Your task to perform on an android device: turn off notifications settings in the gmail app Image 0: 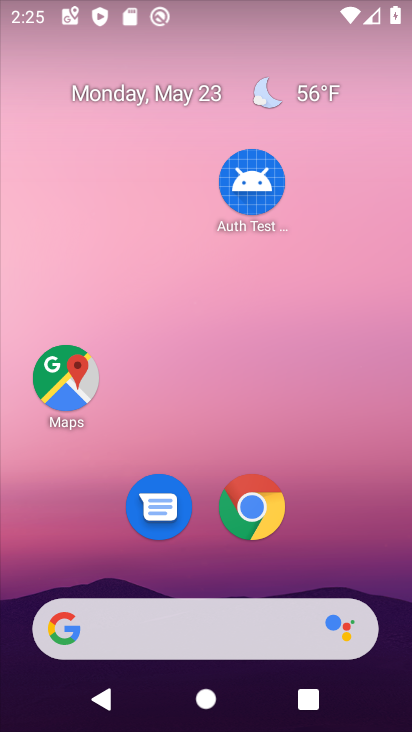
Step 0: drag from (348, 695) to (200, 7)
Your task to perform on an android device: turn off notifications settings in the gmail app Image 1: 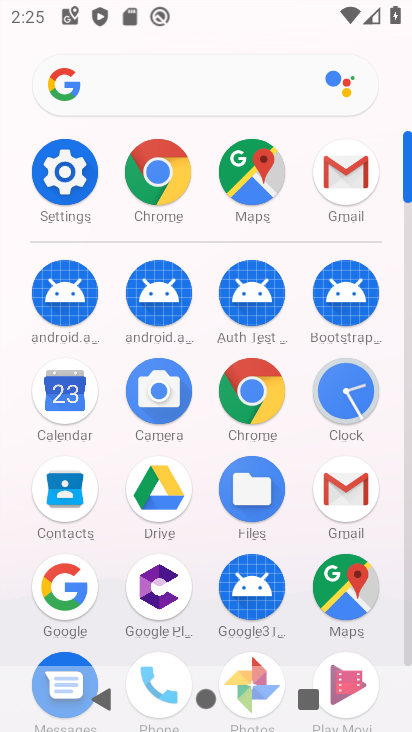
Step 1: click (342, 480)
Your task to perform on an android device: turn off notifications settings in the gmail app Image 2: 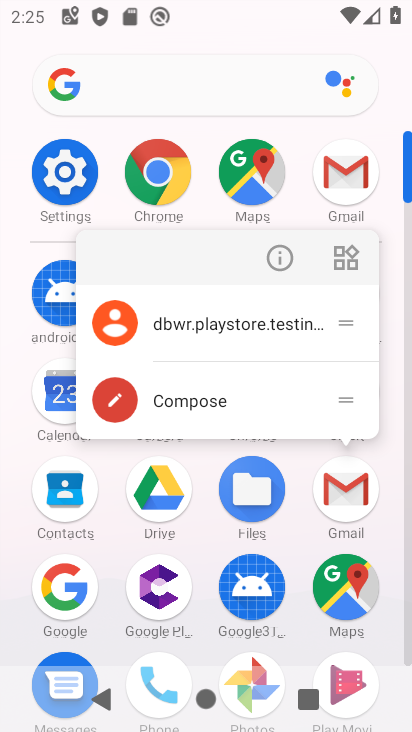
Step 2: click (342, 480)
Your task to perform on an android device: turn off notifications settings in the gmail app Image 3: 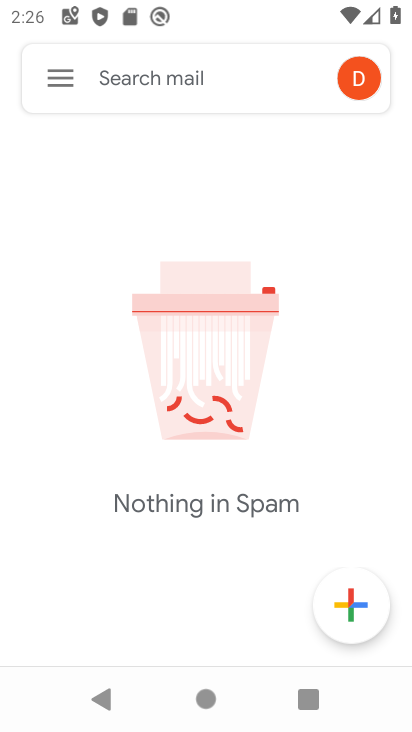
Step 3: press back button
Your task to perform on an android device: turn off notifications settings in the gmail app Image 4: 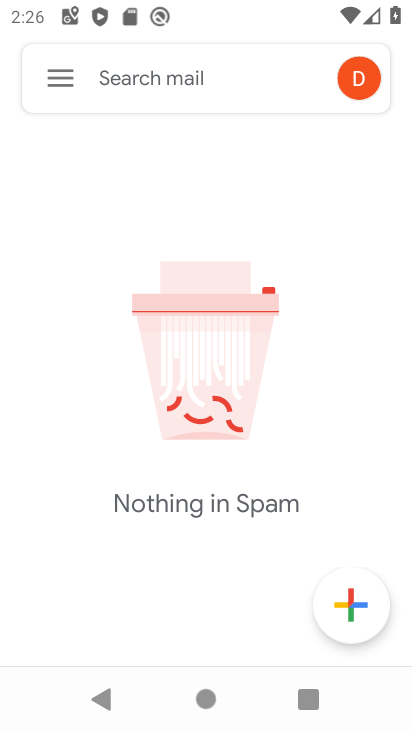
Step 4: press back button
Your task to perform on an android device: turn off notifications settings in the gmail app Image 5: 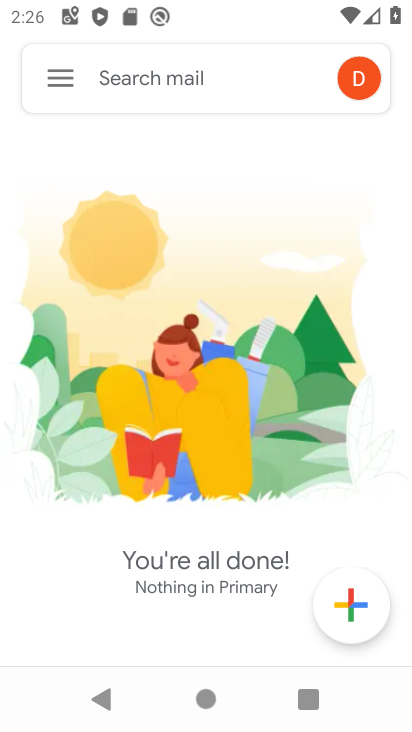
Step 5: press back button
Your task to perform on an android device: turn off notifications settings in the gmail app Image 6: 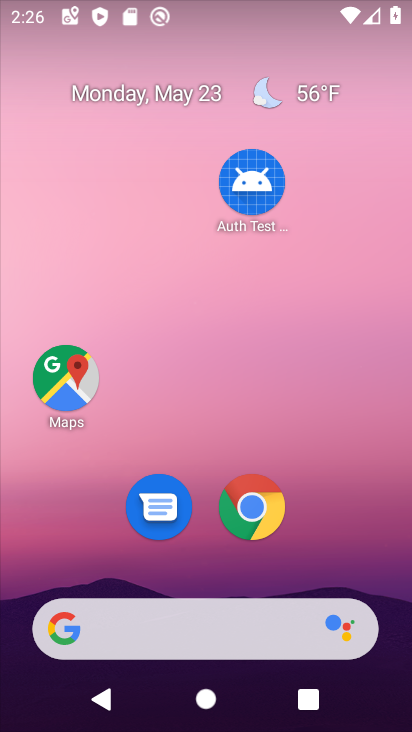
Step 6: press home button
Your task to perform on an android device: turn off notifications settings in the gmail app Image 7: 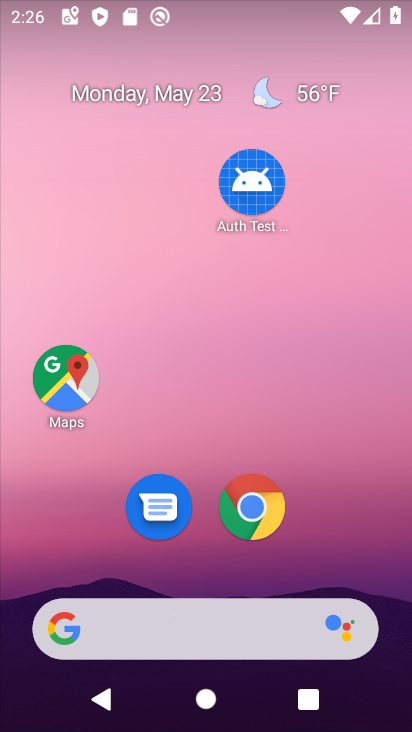
Step 7: drag from (270, 533) to (163, 33)
Your task to perform on an android device: turn off notifications settings in the gmail app Image 8: 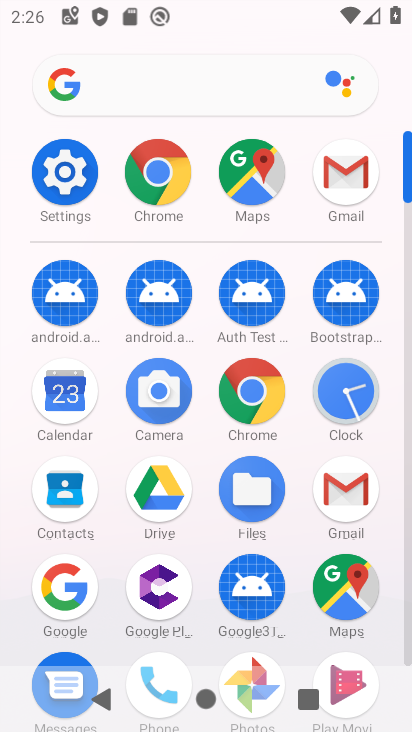
Step 8: click (335, 479)
Your task to perform on an android device: turn off notifications settings in the gmail app Image 9: 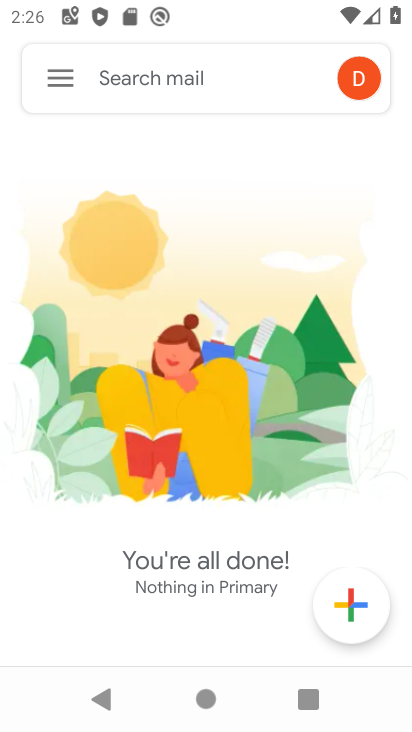
Step 9: click (64, 64)
Your task to perform on an android device: turn off notifications settings in the gmail app Image 10: 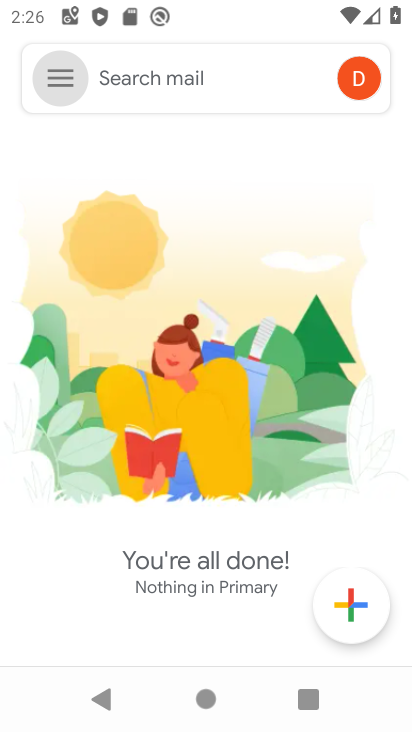
Step 10: click (64, 72)
Your task to perform on an android device: turn off notifications settings in the gmail app Image 11: 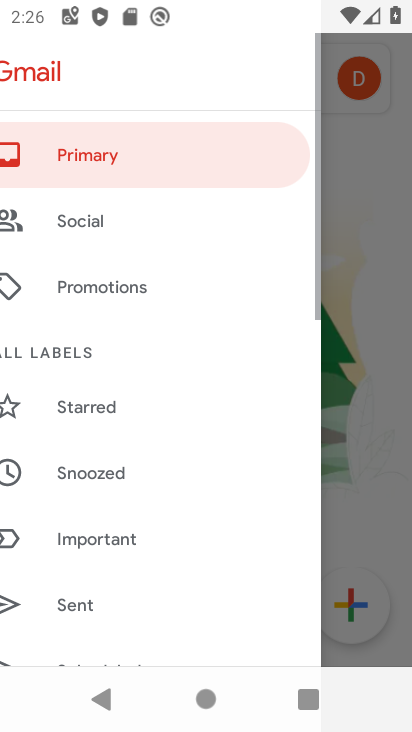
Step 11: click (64, 72)
Your task to perform on an android device: turn off notifications settings in the gmail app Image 12: 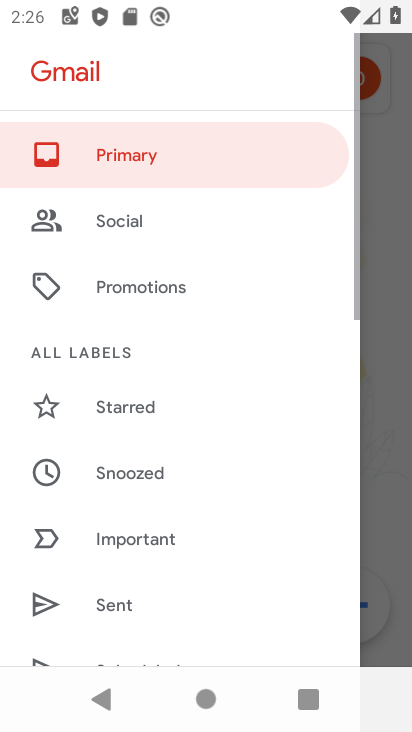
Step 12: click (65, 73)
Your task to perform on an android device: turn off notifications settings in the gmail app Image 13: 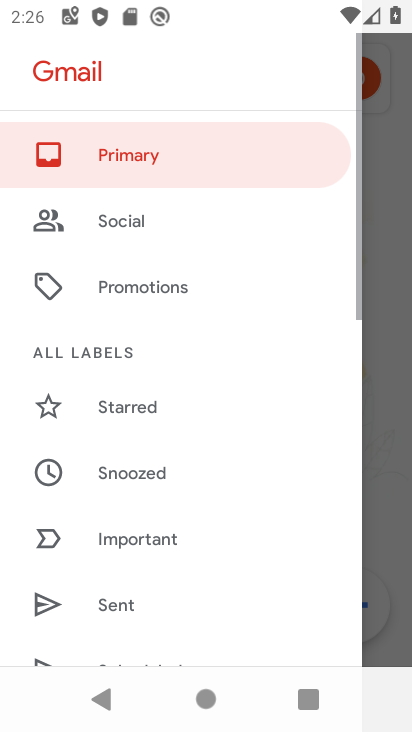
Step 13: click (66, 72)
Your task to perform on an android device: turn off notifications settings in the gmail app Image 14: 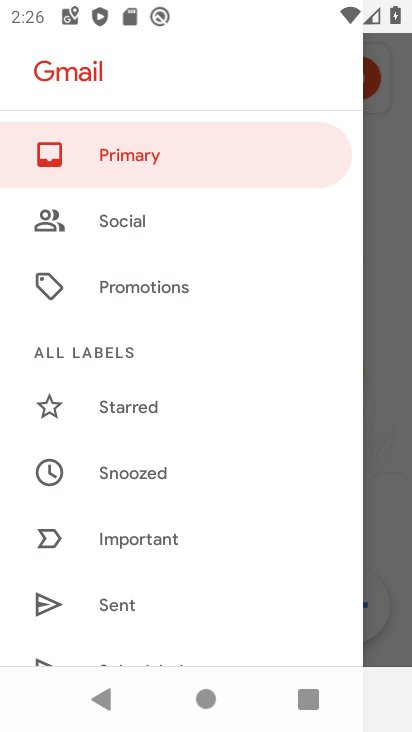
Step 14: drag from (254, 526) to (239, 123)
Your task to perform on an android device: turn off notifications settings in the gmail app Image 15: 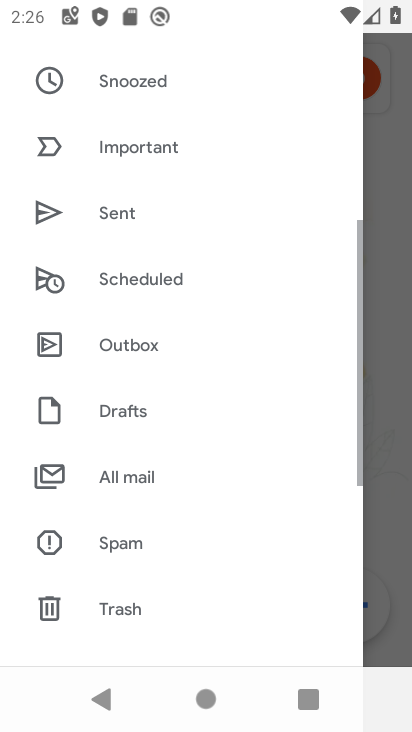
Step 15: drag from (251, 421) to (174, 107)
Your task to perform on an android device: turn off notifications settings in the gmail app Image 16: 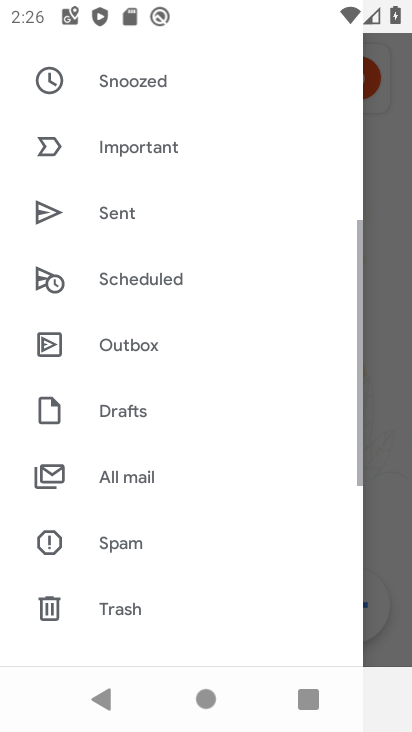
Step 16: drag from (184, 449) to (129, 44)
Your task to perform on an android device: turn off notifications settings in the gmail app Image 17: 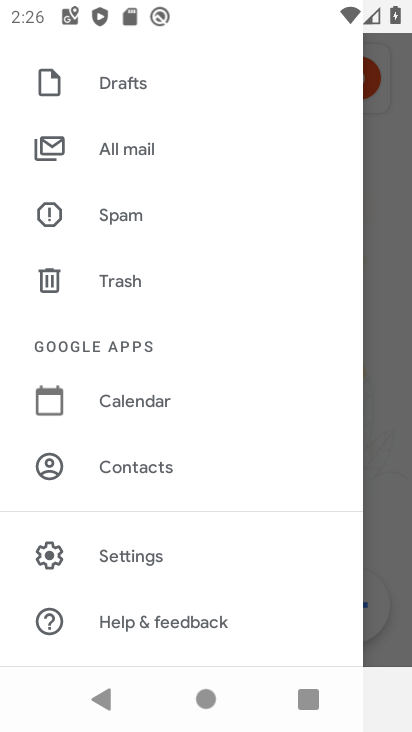
Step 17: click (131, 545)
Your task to perform on an android device: turn off notifications settings in the gmail app Image 18: 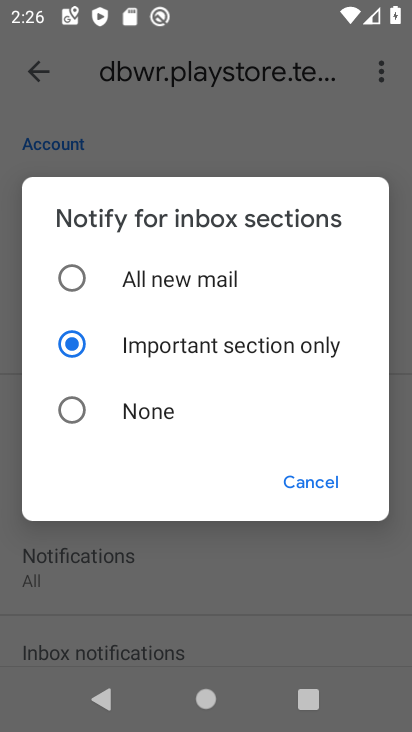
Step 18: click (310, 475)
Your task to perform on an android device: turn off notifications settings in the gmail app Image 19: 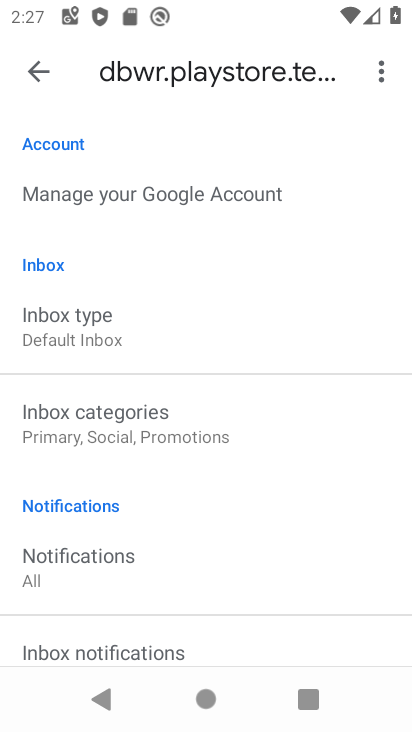
Step 19: drag from (101, 464) to (95, 77)
Your task to perform on an android device: turn off notifications settings in the gmail app Image 20: 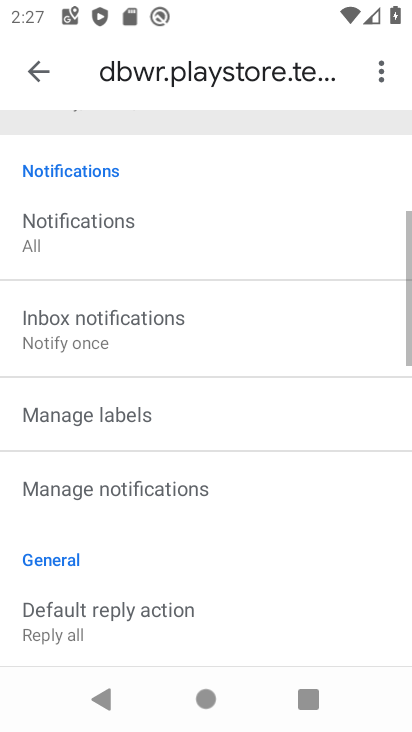
Step 20: drag from (167, 490) to (161, 199)
Your task to perform on an android device: turn off notifications settings in the gmail app Image 21: 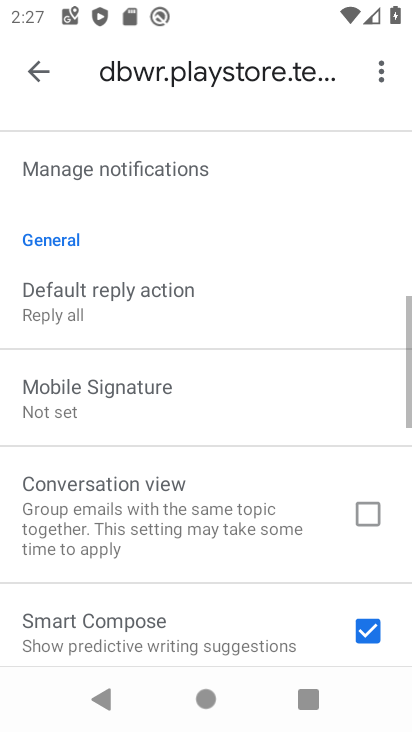
Step 21: drag from (181, 534) to (123, 338)
Your task to perform on an android device: turn off notifications settings in the gmail app Image 22: 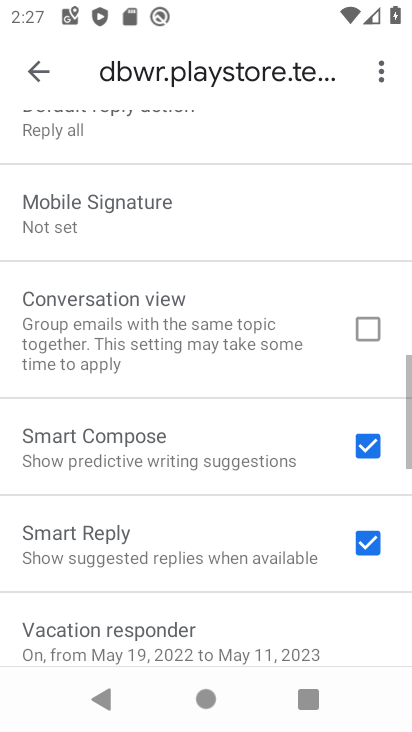
Step 22: drag from (188, 503) to (169, 382)
Your task to perform on an android device: turn off notifications settings in the gmail app Image 23: 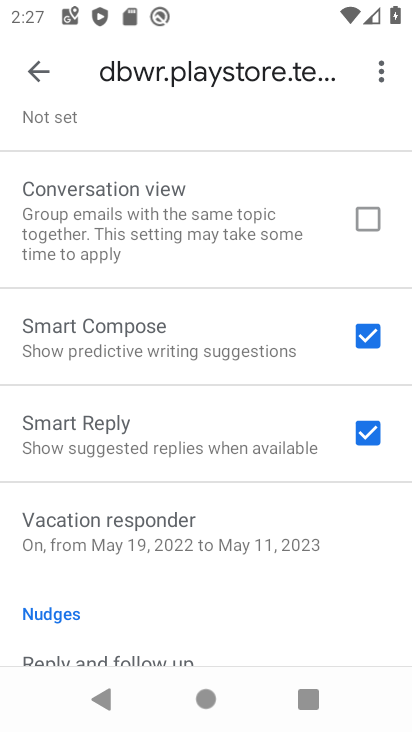
Step 23: drag from (153, 562) to (130, 211)
Your task to perform on an android device: turn off notifications settings in the gmail app Image 24: 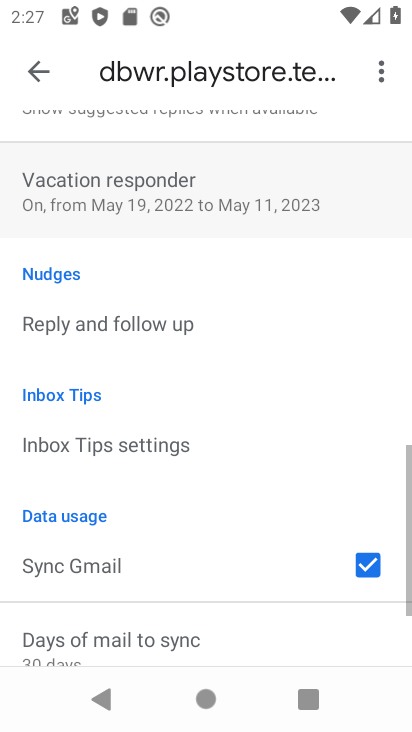
Step 24: drag from (138, 454) to (115, 137)
Your task to perform on an android device: turn off notifications settings in the gmail app Image 25: 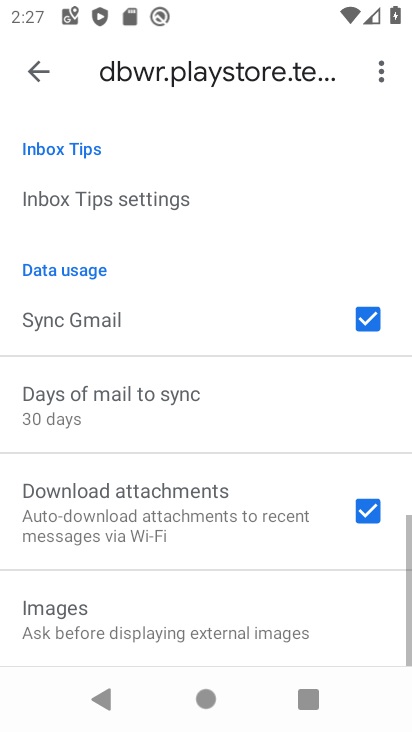
Step 25: drag from (148, 291) to (162, 515)
Your task to perform on an android device: turn off notifications settings in the gmail app Image 26: 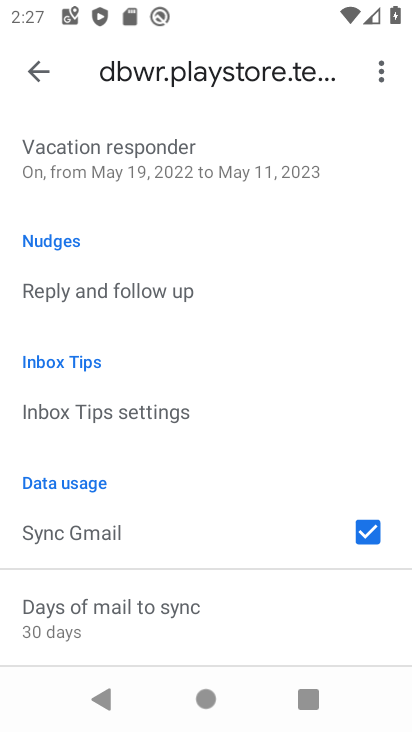
Step 26: drag from (122, 497) to (103, 97)
Your task to perform on an android device: turn off notifications settings in the gmail app Image 27: 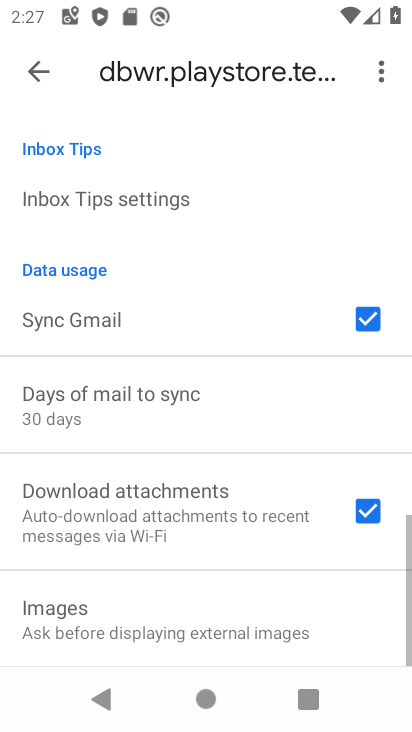
Step 27: drag from (145, 416) to (160, 121)
Your task to perform on an android device: turn off notifications settings in the gmail app Image 28: 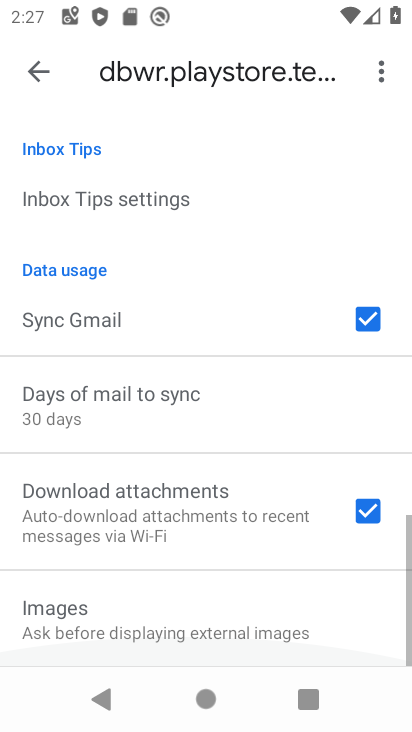
Step 28: drag from (136, 458) to (134, 102)
Your task to perform on an android device: turn off notifications settings in the gmail app Image 29: 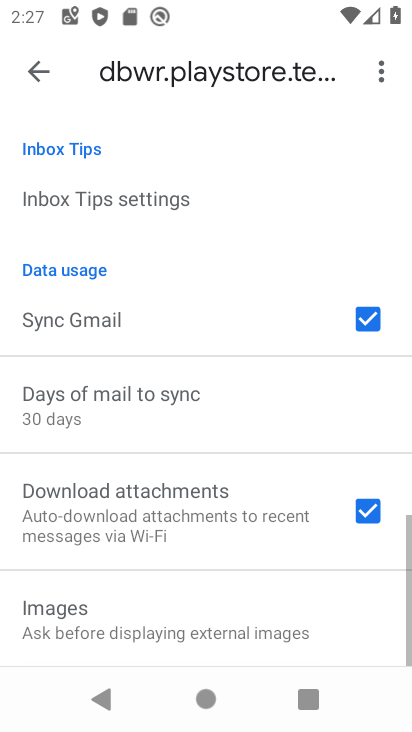
Step 29: drag from (139, 502) to (185, 100)
Your task to perform on an android device: turn off notifications settings in the gmail app Image 30: 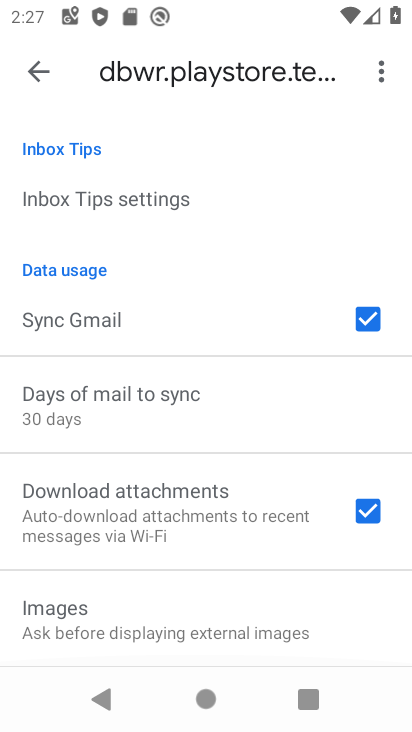
Step 30: drag from (110, 437) to (104, 19)
Your task to perform on an android device: turn off notifications settings in the gmail app Image 31: 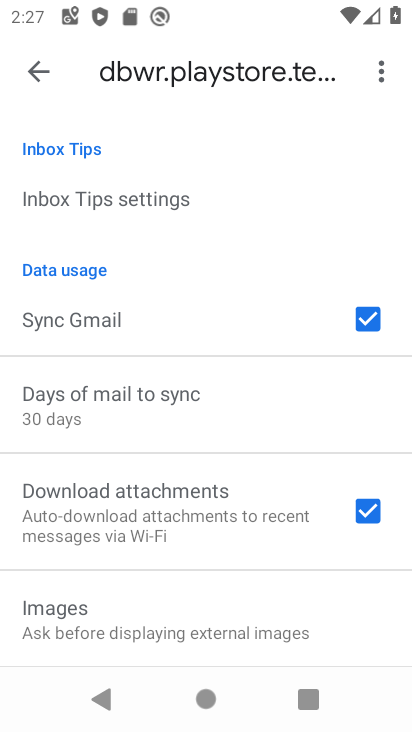
Step 31: drag from (99, 454) to (99, 188)
Your task to perform on an android device: turn off notifications settings in the gmail app Image 32: 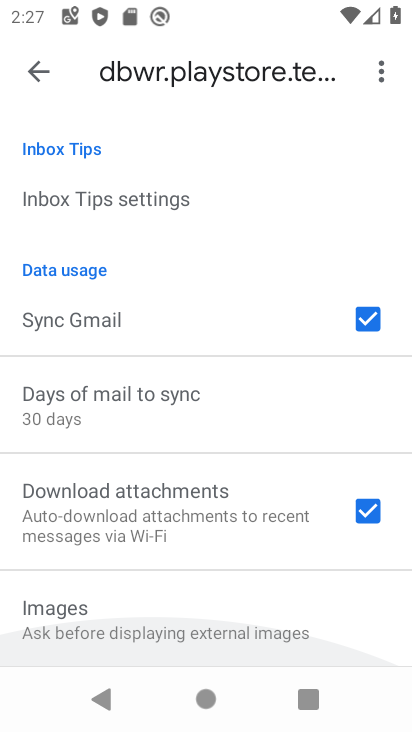
Step 32: drag from (190, 495) to (190, 153)
Your task to perform on an android device: turn off notifications settings in the gmail app Image 33: 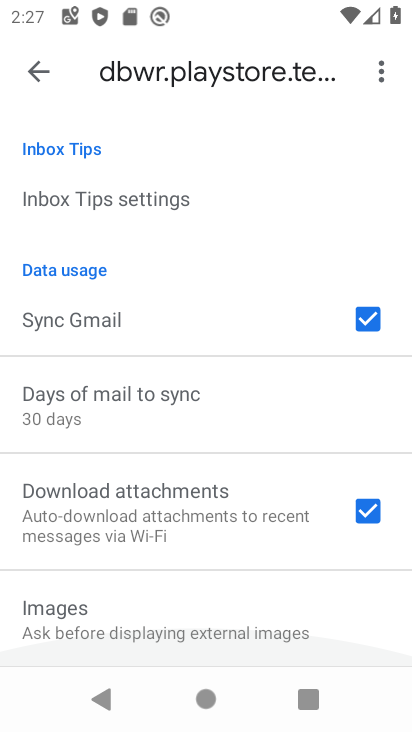
Step 33: drag from (201, 512) to (143, 136)
Your task to perform on an android device: turn off notifications settings in the gmail app Image 34: 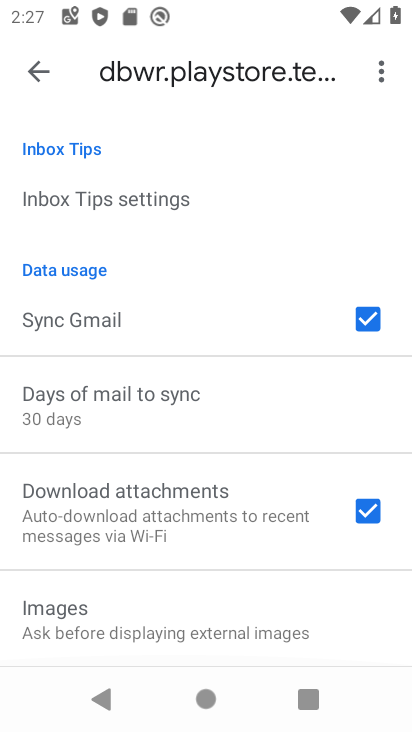
Step 34: click (36, 62)
Your task to perform on an android device: turn off notifications settings in the gmail app Image 35: 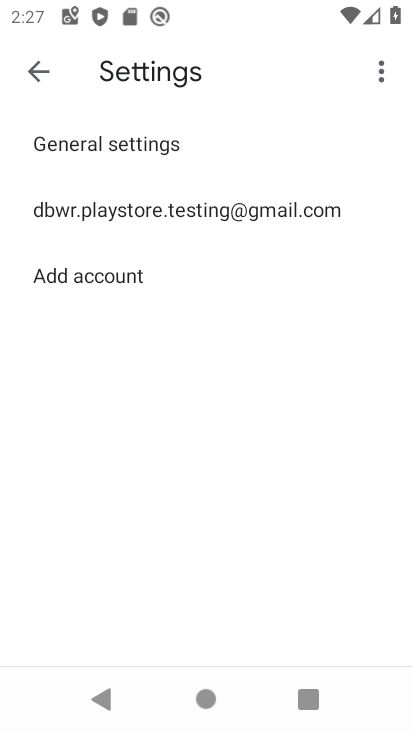
Step 35: click (110, 197)
Your task to perform on an android device: turn off notifications settings in the gmail app Image 36: 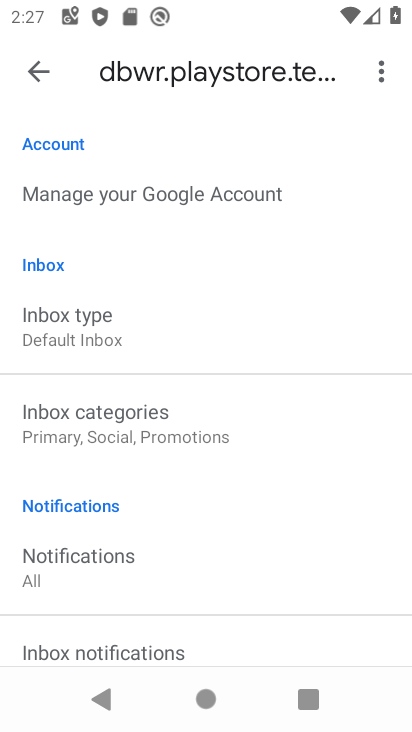
Step 36: click (71, 561)
Your task to perform on an android device: turn off notifications settings in the gmail app Image 37: 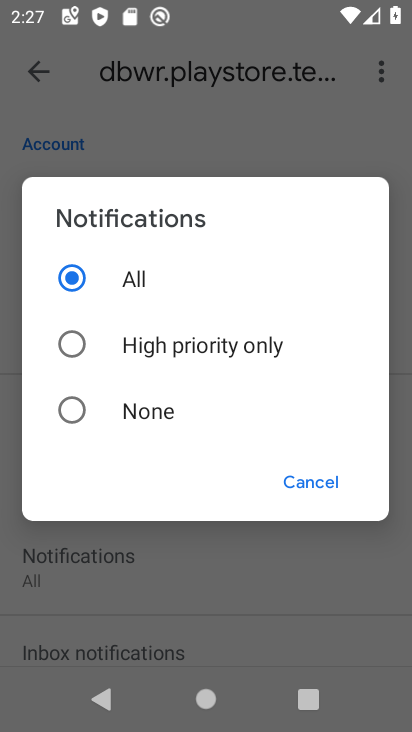
Step 37: click (72, 406)
Your task to perform on an android device: turn off notifications settings in the gmail app Image 38: 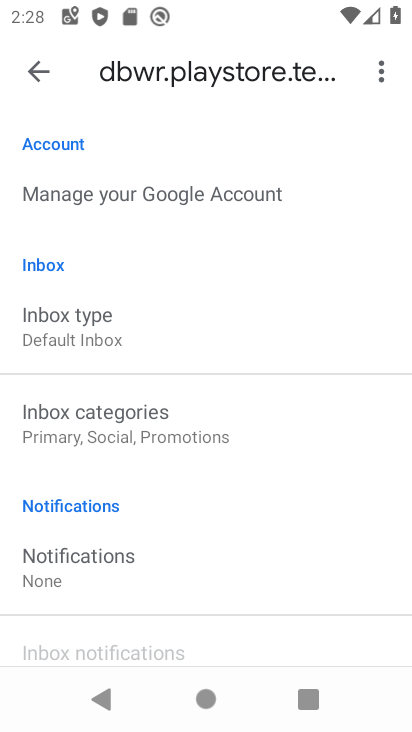
Step 38: task complete